Your task to perform on an android device: open app "Pandora - Music & Podcasts" Image 0: 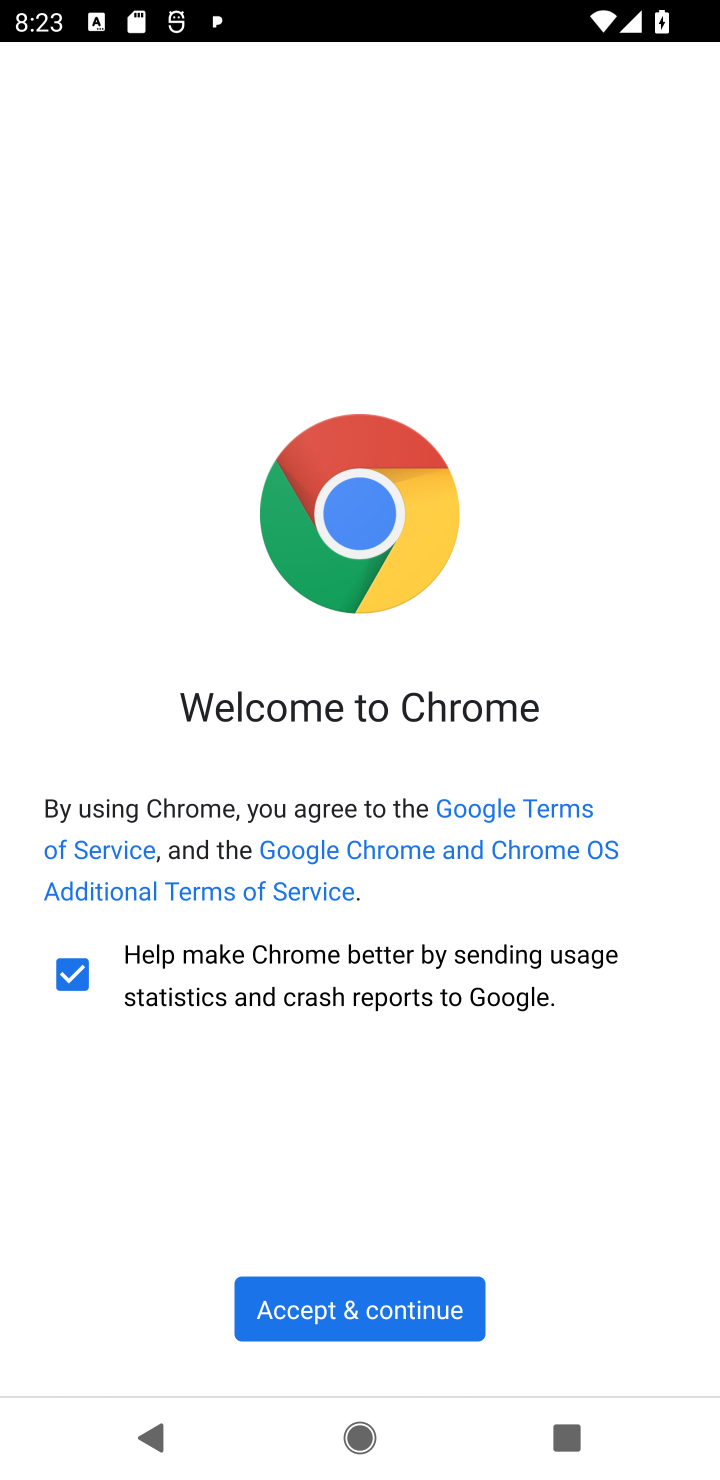
Step 0: press home button
Your task to perform on an android device: open app "Pandora - Music & Podcasts" Image 1: 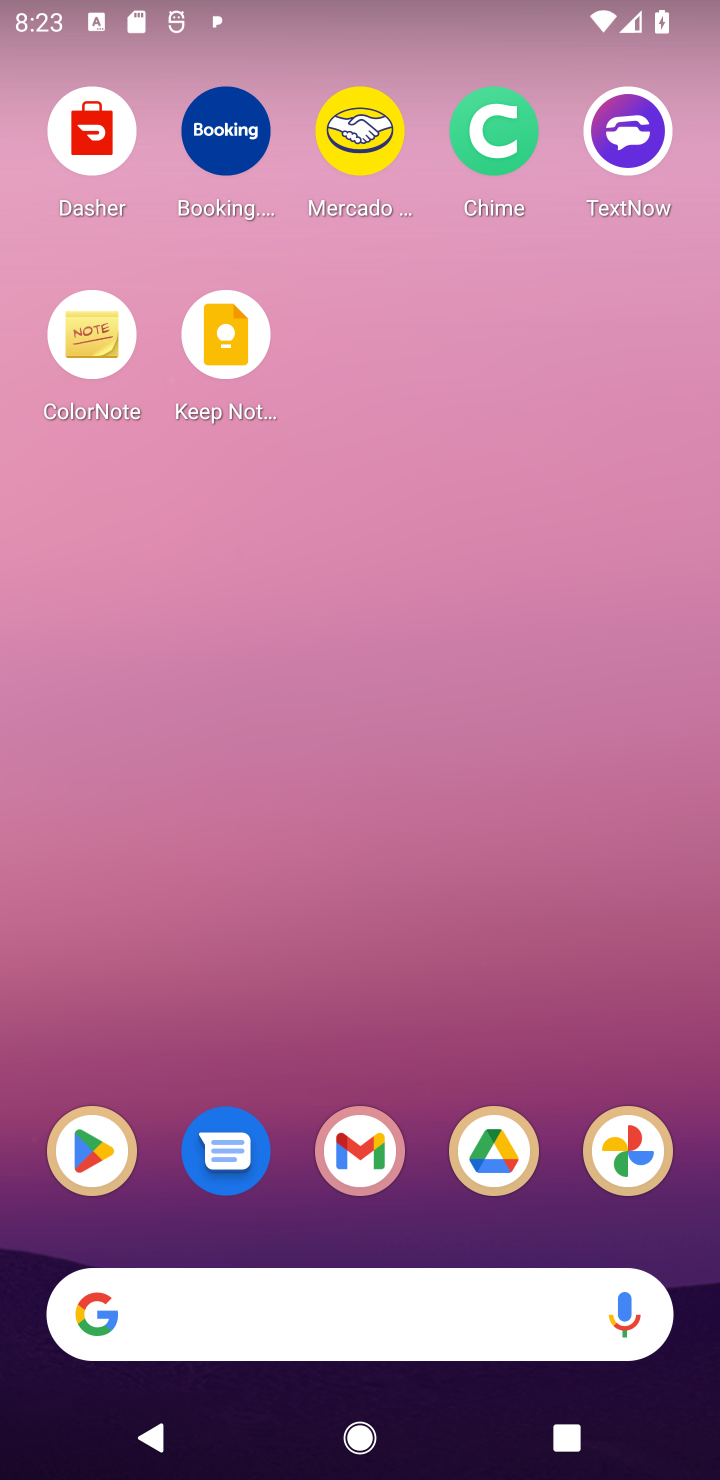
Step 1: click (88, 1157)
Your task to perform on an android device: open app "Pandora - Music & Podcasts" Image 2: 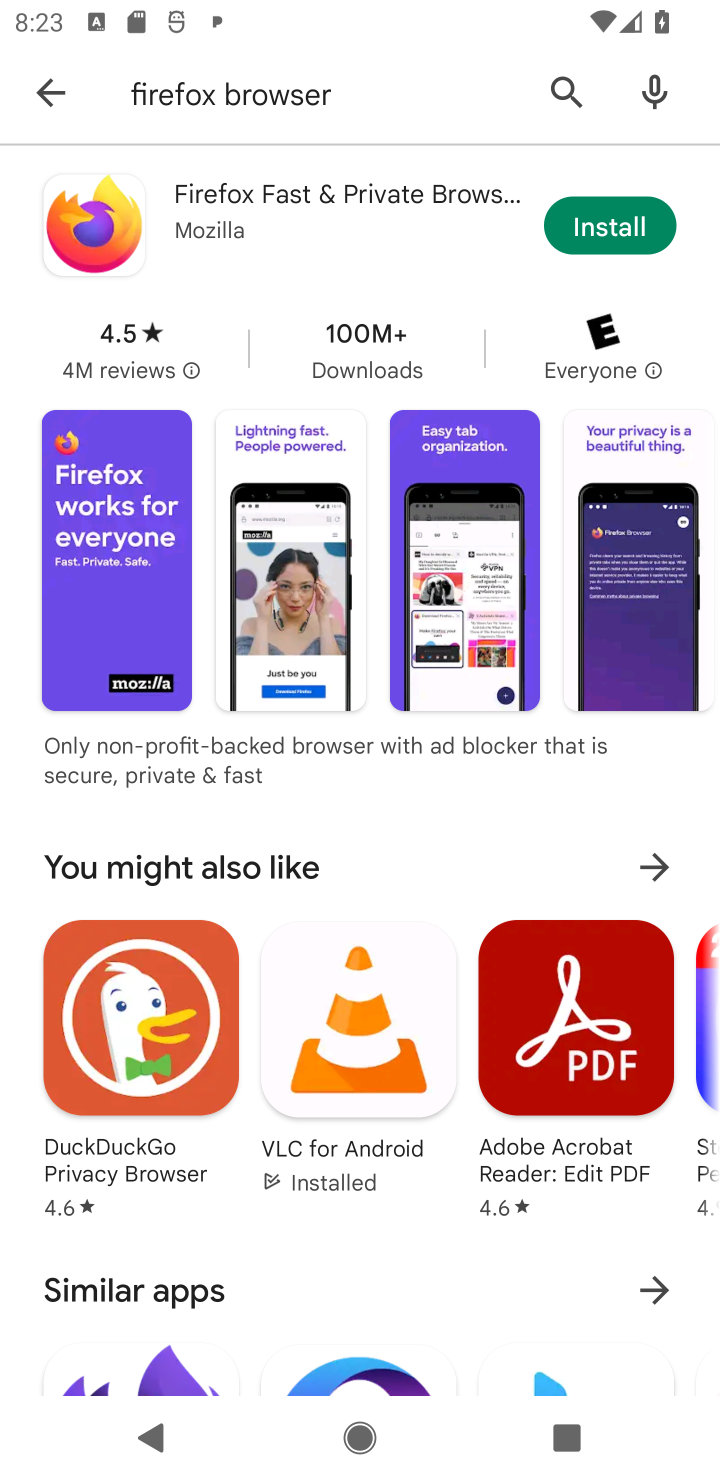
Step 2: click (560, 99)
Your task to perform on an android device: open app "Pandora - Music & Podcasts" Image 3: 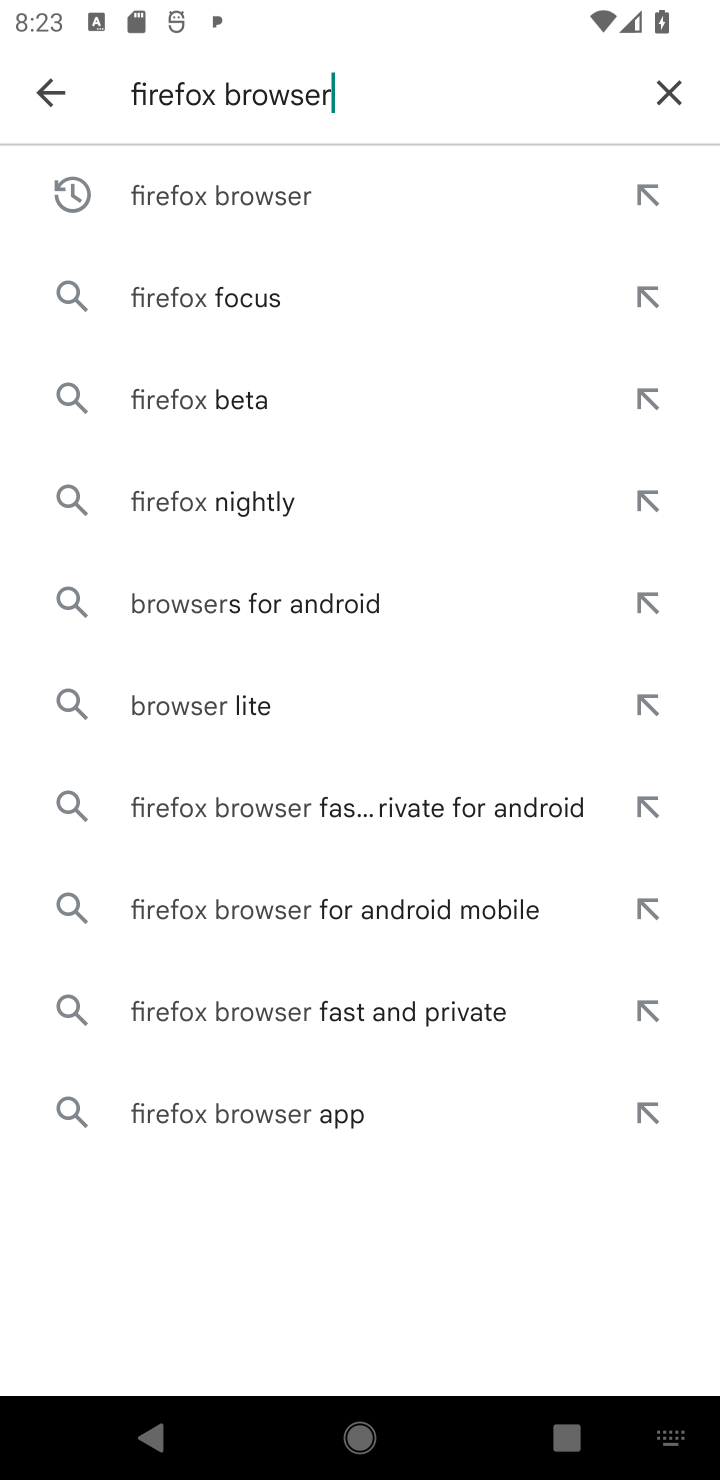
Step 3: click (673, 104)
Your task to perform on an android device: open app "Pandora - Music & Podcasts" Image 4: 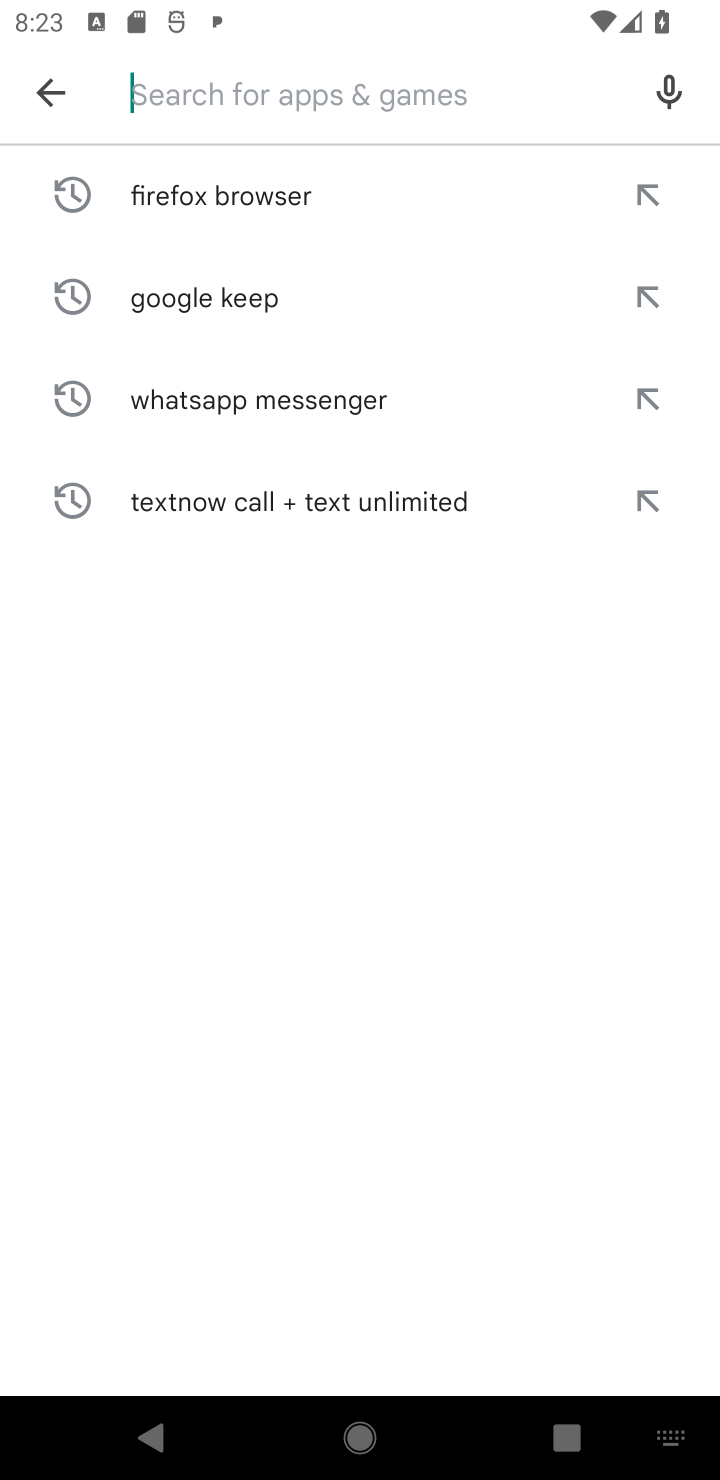
Step 4: type "Pandora - Music & Podcasts"
Your task to perform on an android device: open app "Pandora - Music & Podcasts" Image 5: 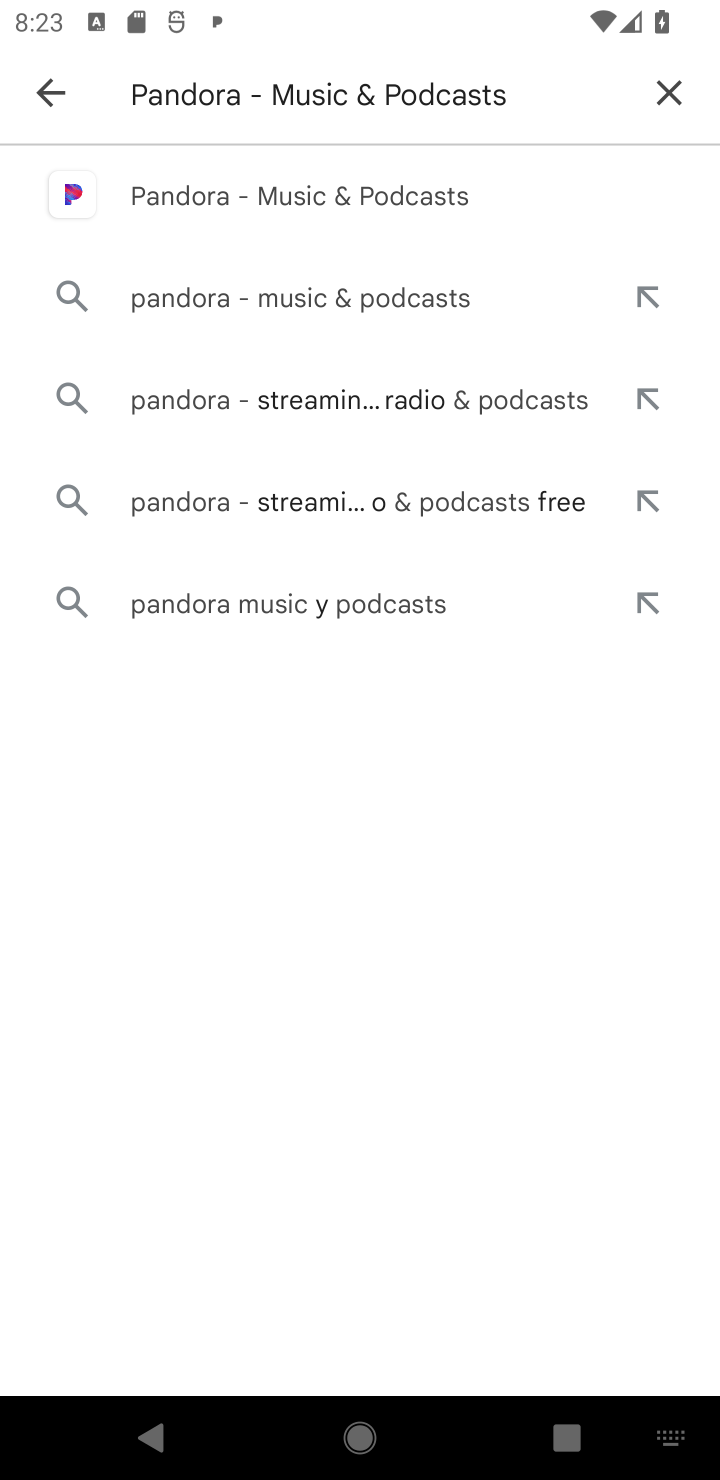
Step 5: click (237, 212)
Your task to perform on an android device: open app "Pandora - Music & Podcasts" Image 6: 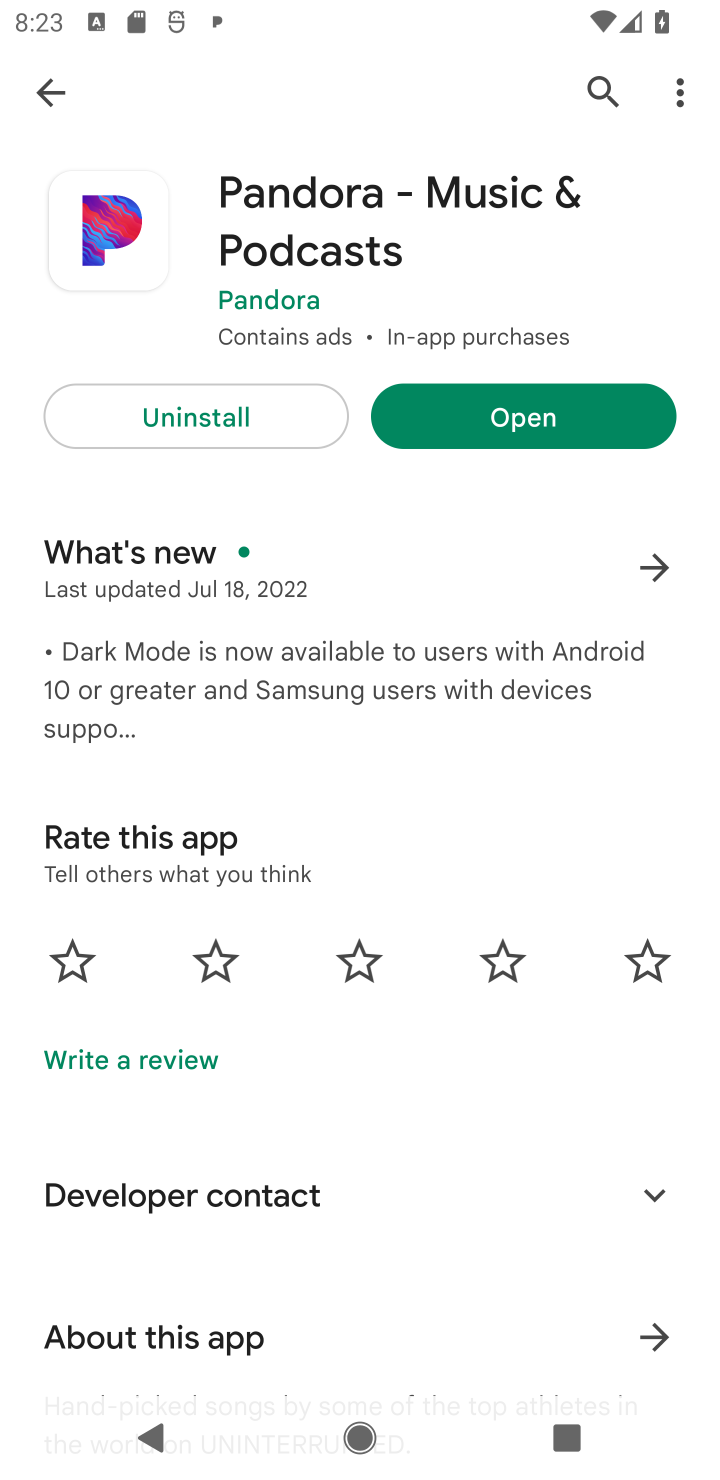
Step 6: click (513, 419)
Your task to perform on an android device: open app "Pandora - Music & Podcasts" Image 7: 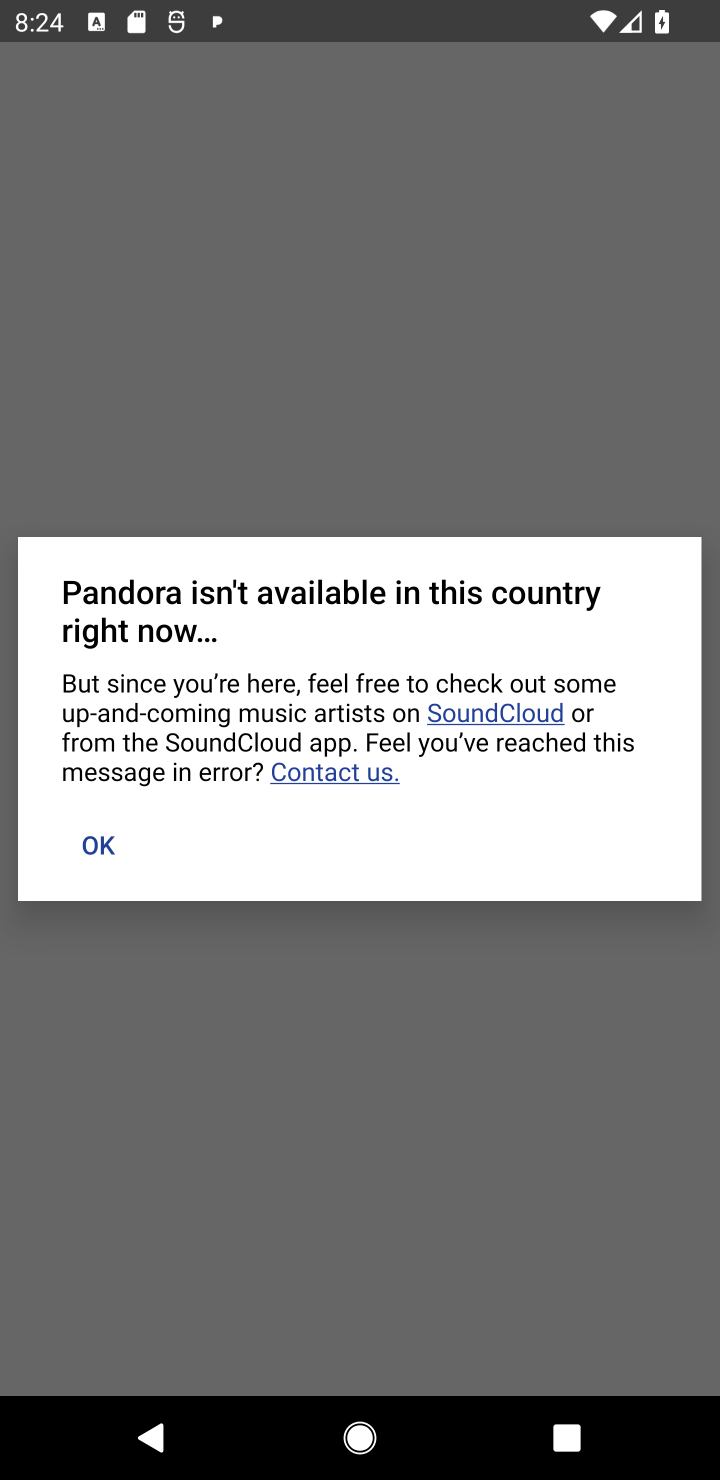
Step 7: task complete